Your task to perform on an android device: Open maps Image 0: 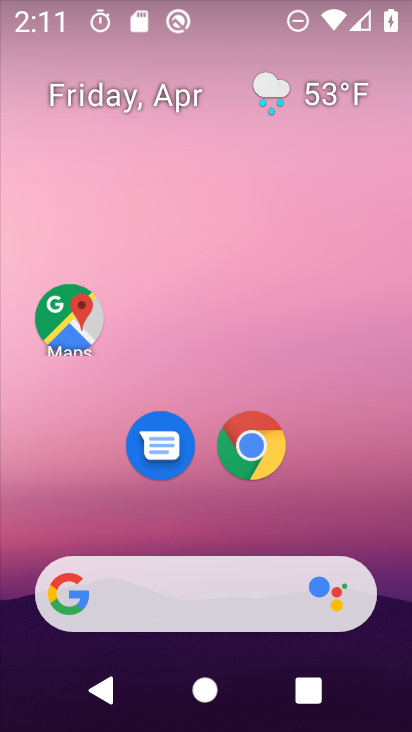
Step 0: drag from (354, 507) to (377, 139)
Your task to perform on an android device: Open maps Image 1: 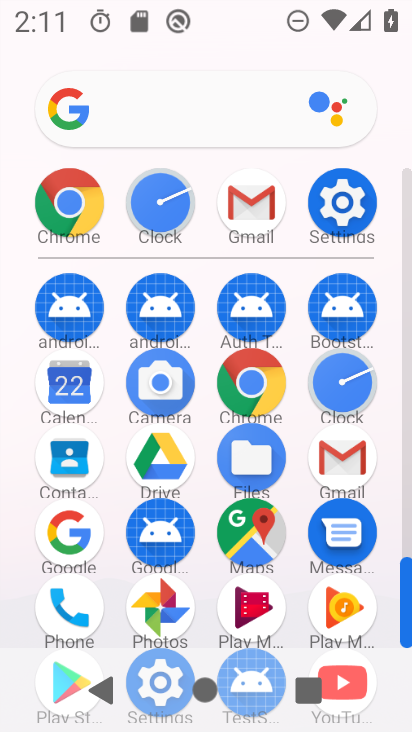
Step 1: click (267, 537)
Your task to perform on an android device: Open maps Image 2: 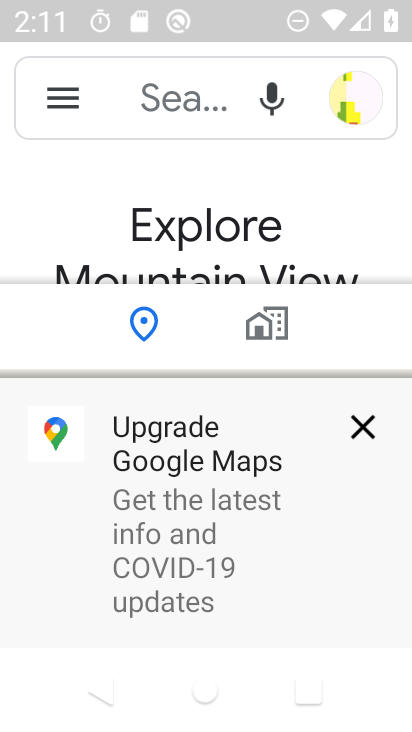
Step 2: task complete